Your task to perform on an android device: Go to internet settings Image 0: 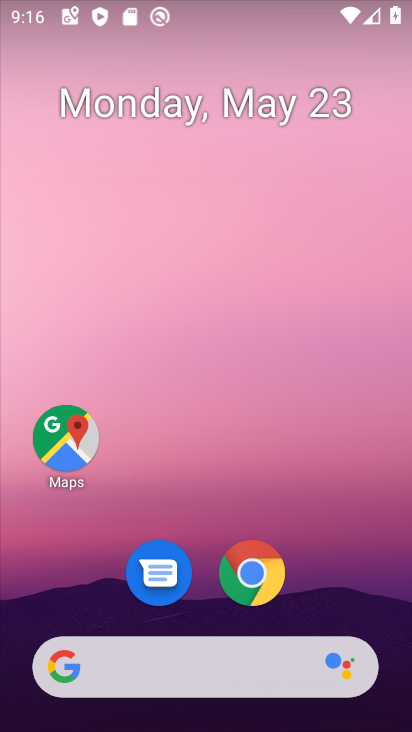
Step 0: drag from (375, 608) to (383, 281)
Your task to perform on an android device: Go to internet settings Image 1: 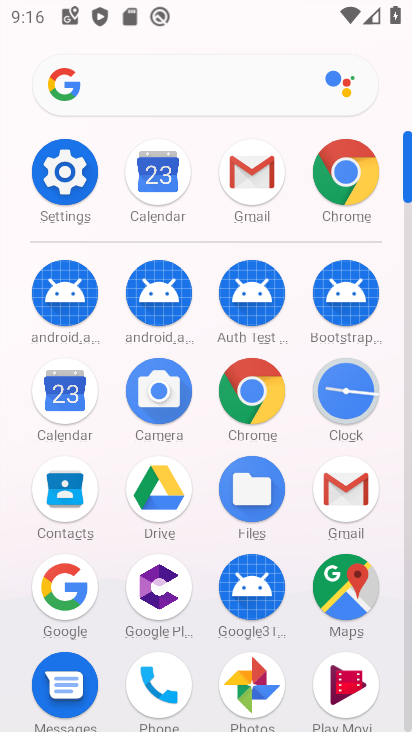
Step 1: drag from (395, 631) to (387, 380)
Your task to perform on an android device: Go to internet settings Image 2: 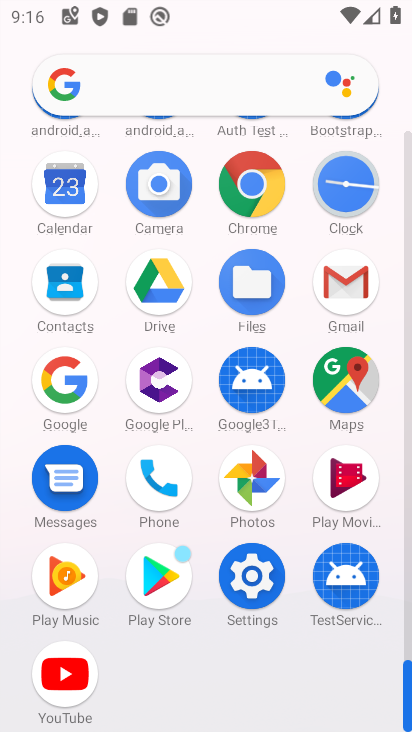
Step 2: click (259, 595)
Your task to perform on an android device: Go to internet settings Image 3: 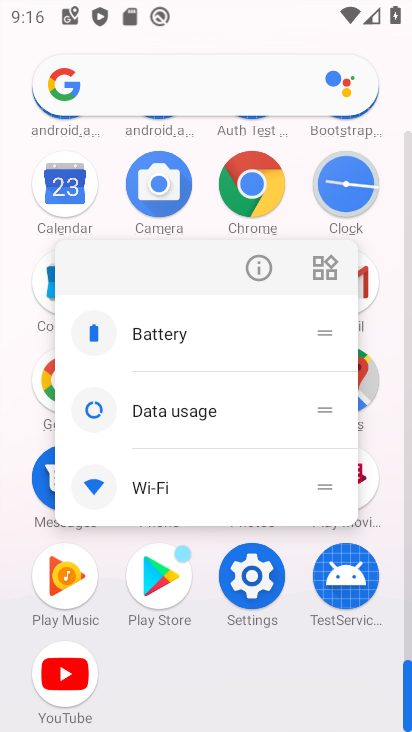
Step 3: click (258, 594)
Your task to perform on an android device: Go to internet settings Image 4: 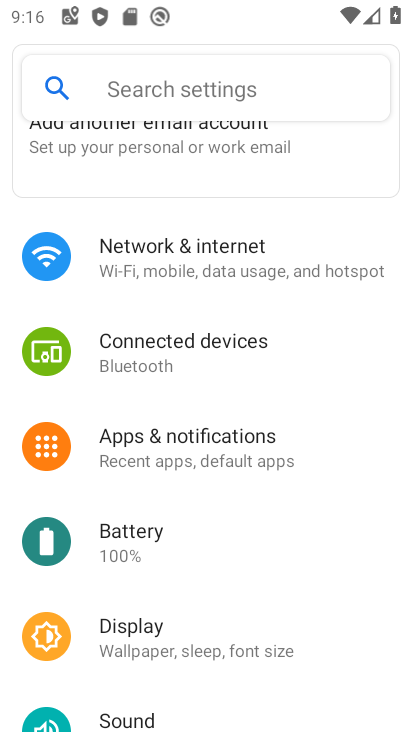
Step 4: drag from (346, 553) to (366, 476)
Your task to perform on an android device: Go to internet settings Image 5: 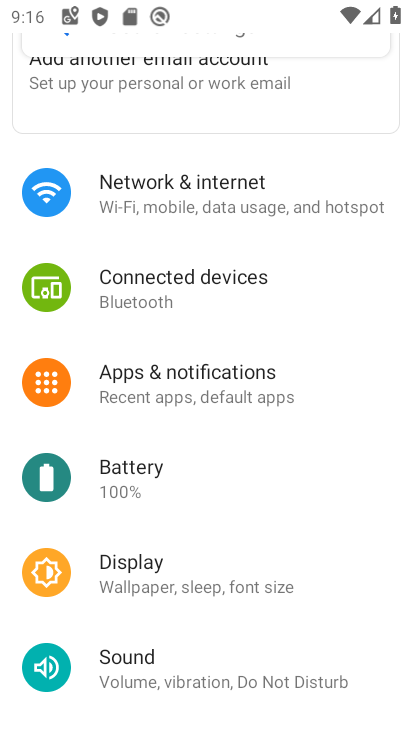
Step 5: drag from (383, 625) to (390, 506)
Your task to perform on an android device: Go to internet settings Image 6: 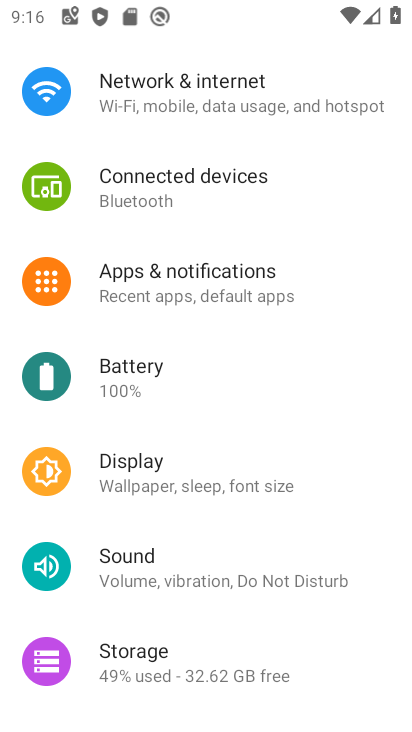
Step 6: drag from (363, 632) to (366, 537)
Your task to perform on an android device: Go to internet settings Image 7: 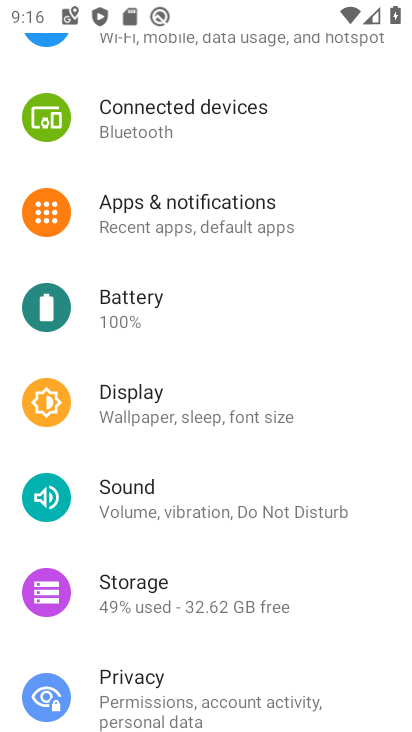
Step 7: drag from (370, 626) to (379, 586)
Your task to perform on an android device: Go to internet settings Image 8: 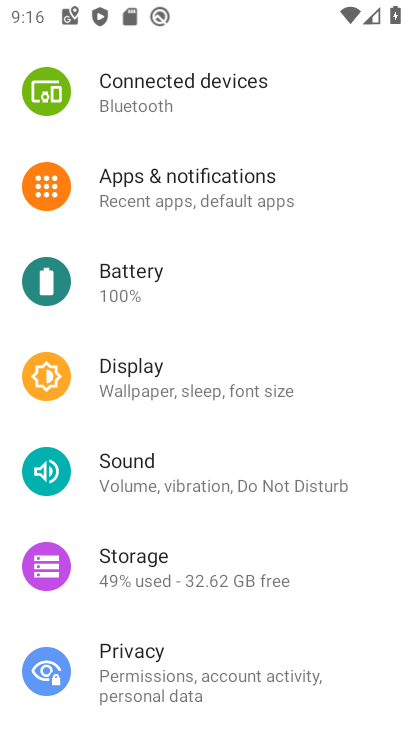
Step 8: drag from (362, 628) to (357, 524)
Your task to perform on an android device: Go to internet settings Image 9: 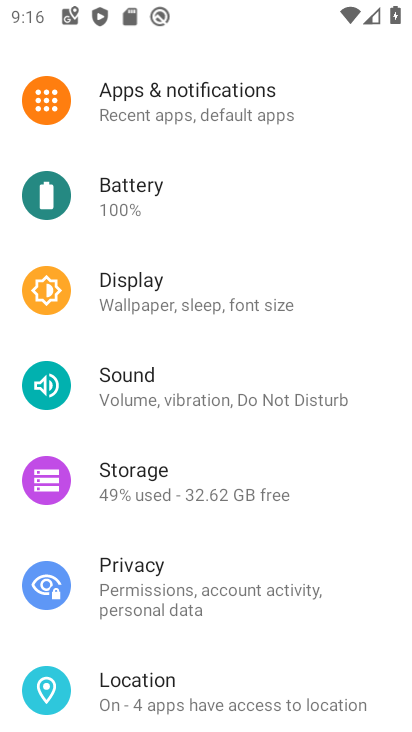
Step 9: drag from (357, 347) to (352, 532)
Your task to perform on an android device: Go to internet settings Image 10: 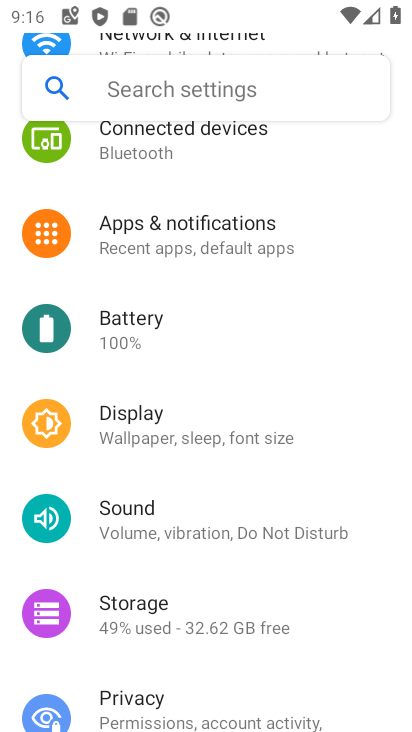
Step 10: drag from (377, 373) to (378, 492)
Your task to perform on an android device: Go to internet settings Image 11: 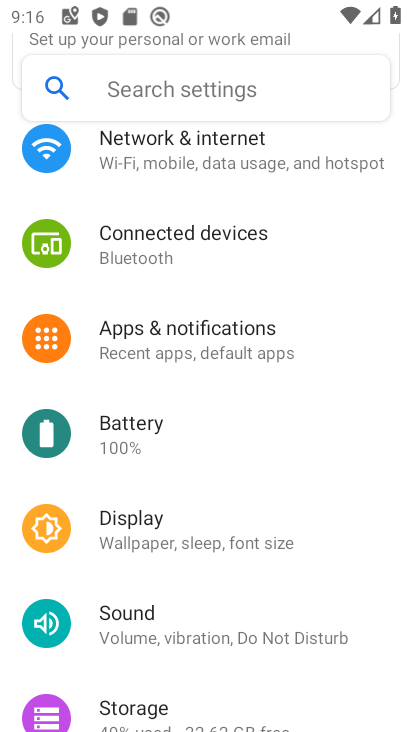
Step 11: drag from (363, 345) to (356, 470)
Your task to perform on an android device: Go to internet settings Image 12: 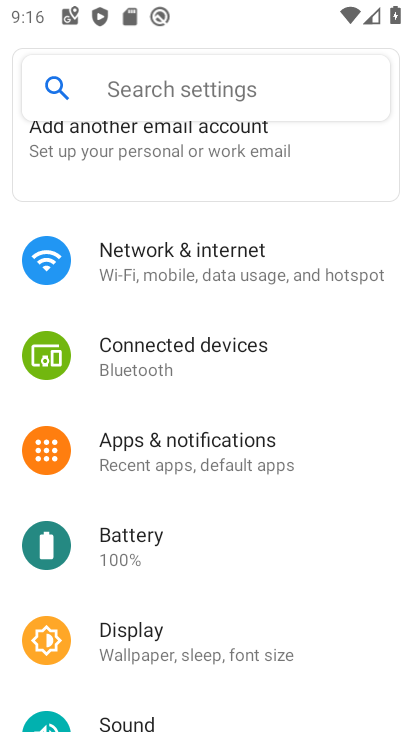
Step 12: drag from (376, 352) to (368, 465)
Your task to perform on an android device: Go to internet settings Image 13: 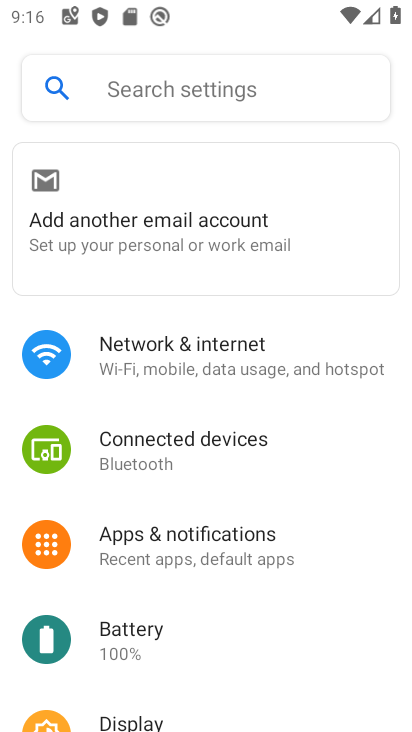
Step 13: drag from (367, 324) to (355, 445)
Your task to perform on an android device: Go to internet settings Image 14: 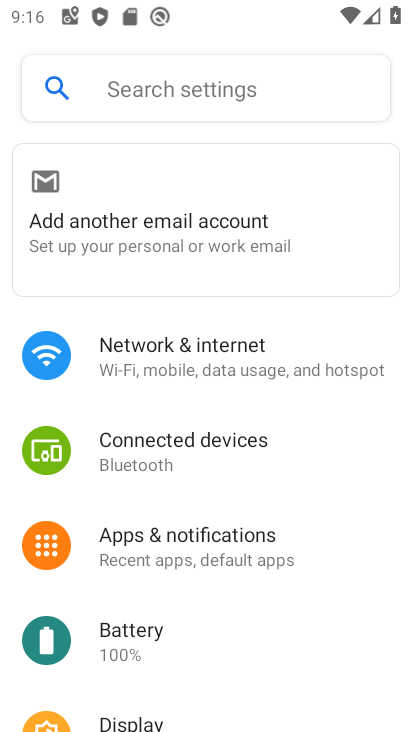
Step 14: click (337, 368)
Your task to perform on an android device: Go to internet settings Image 15: 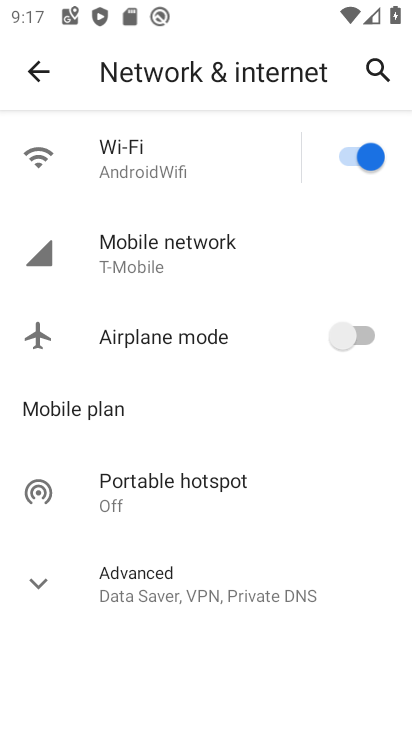
Step 15: task complete